Your task to perform on an android device: Open Chrome and go to settings Image 0: 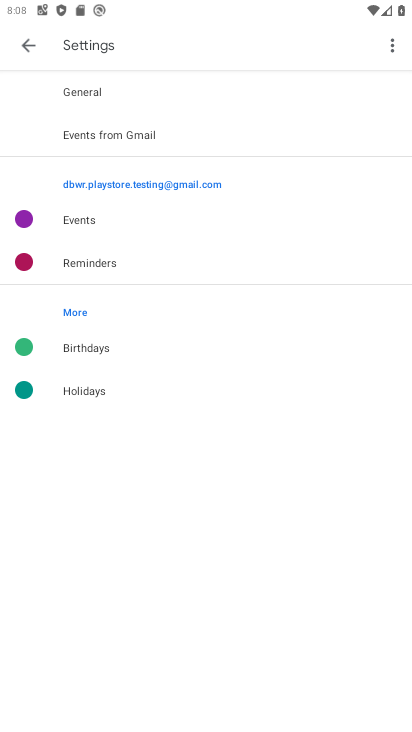
Step 0: drag from (189, 652) to (277, 61)
Your task to perform on an android device: Open Chrome and go to settings Image 1: 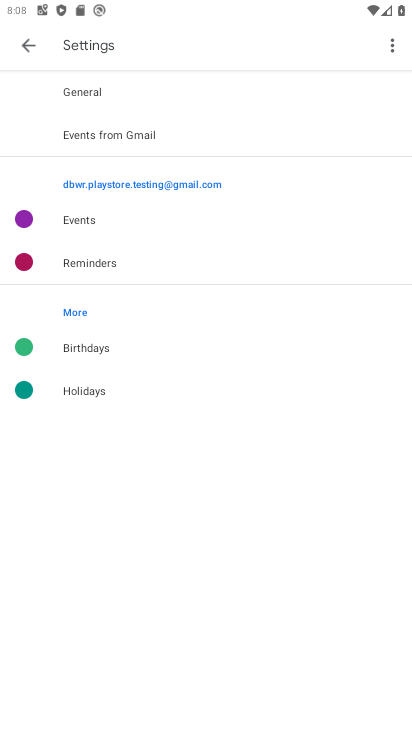
Step 1: press home button
Your task to perform on an android device: Open Chrome and go to settings Image 2: 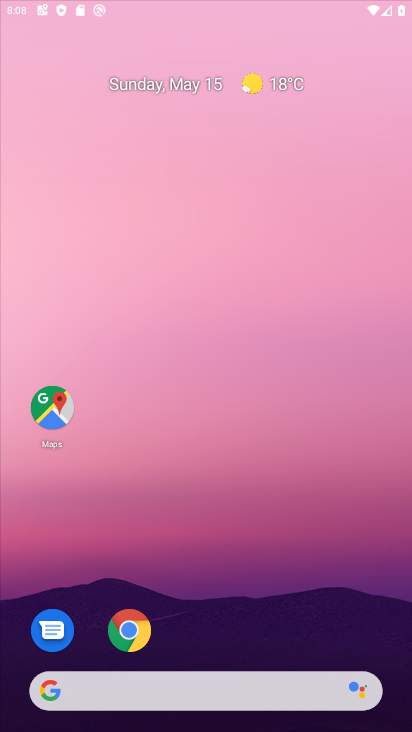
Step 2: drag from (217, 664) to (333, 274)
Your task to perform on an android device: Open Chrome and go to settings Image 3: 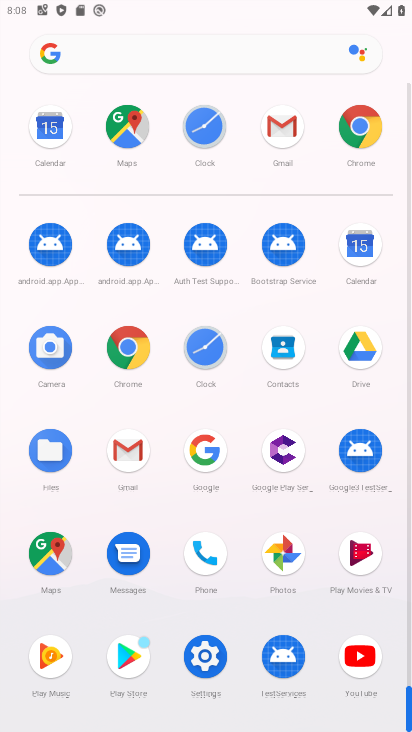
Step 3: click (124, 361)
Your task to perform on an android device: Open Chrome and go to settings Image 4: 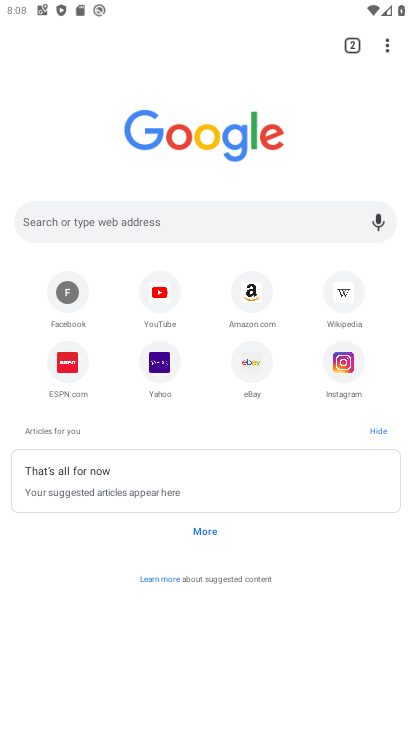
Step 4: click (385, 51)
Your task to perform on an android device: Open Chrome and go to settings Image 5: 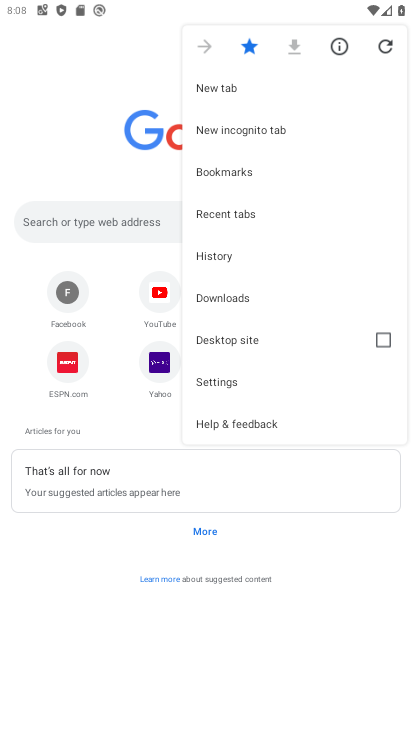
Step 5: click (222, 390)
Your task to perform on an android device: Open Chrome and go to settings Image 6: 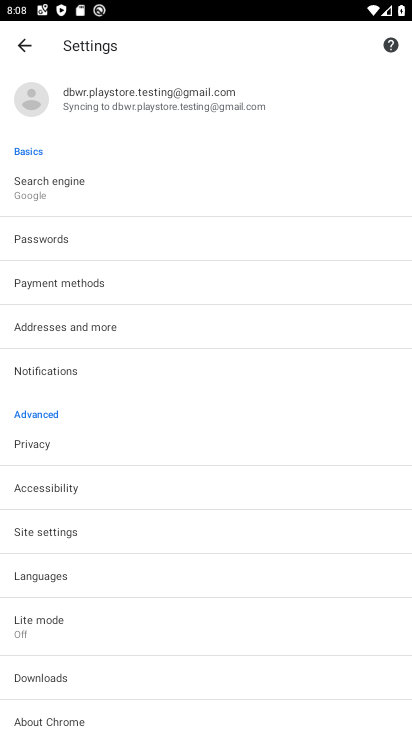
Step 6: drag from (217, 580) to (245, 455)
Your task to perform on an android device: Open Chrome and go to settings Image 7: 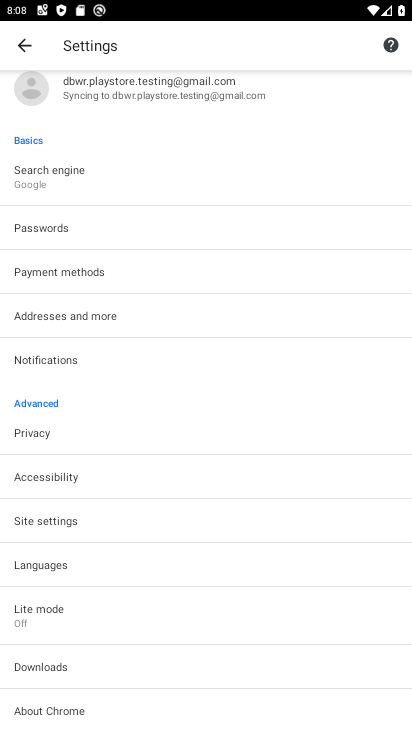
Step 7: click (57, 530)
Your task to perform on an android device: Open Chrome and go to settings Image 8: 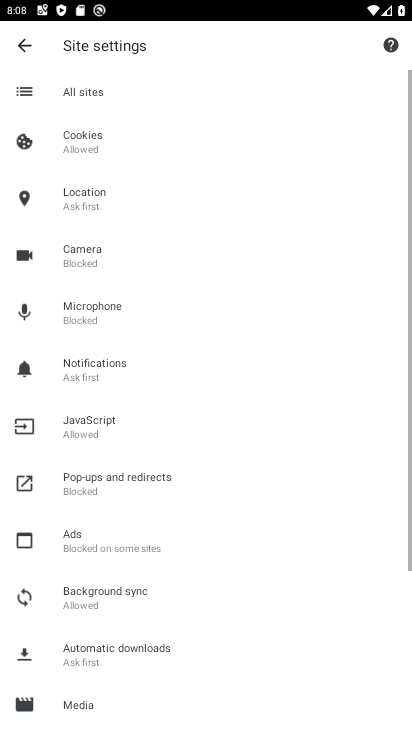
Step 8: task complete